Your task to perform on an android device: Open Chrome and go to settings Image 0: 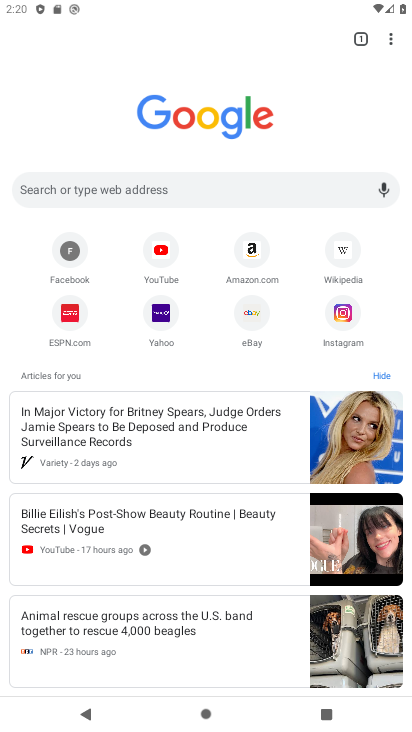
Step 0: click (391, 38)
Your task to perform on an android device: Open Chrome and go to settings Image 1: 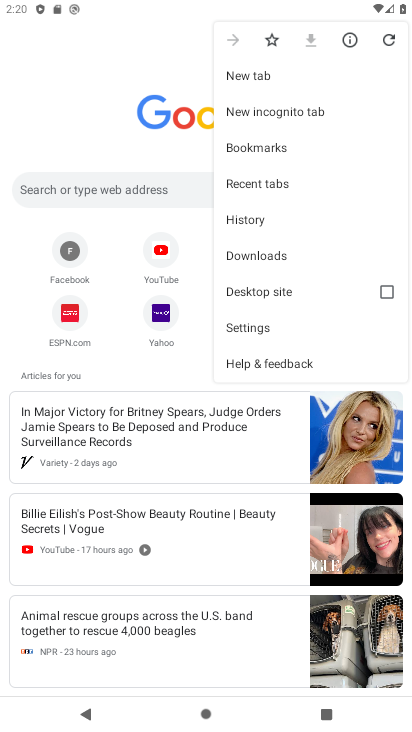
Step 1: click (284, 335)
Your task to perform on an android device: Open Chrome and go to settings Image 2: 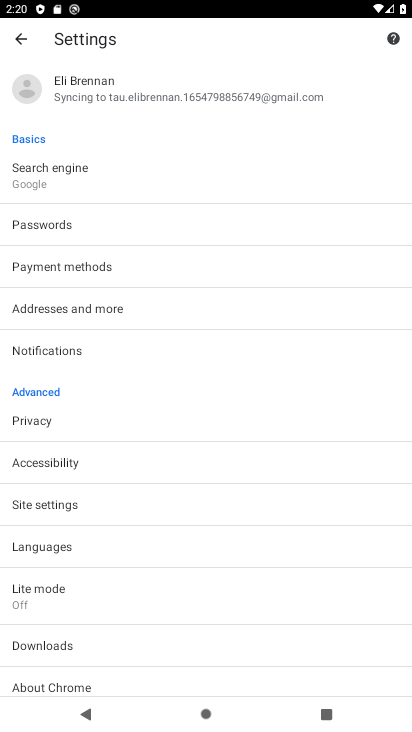
Step 2: task complete